Your task to perform on an android device: Open calendar and show me the second week of next month Image 0: 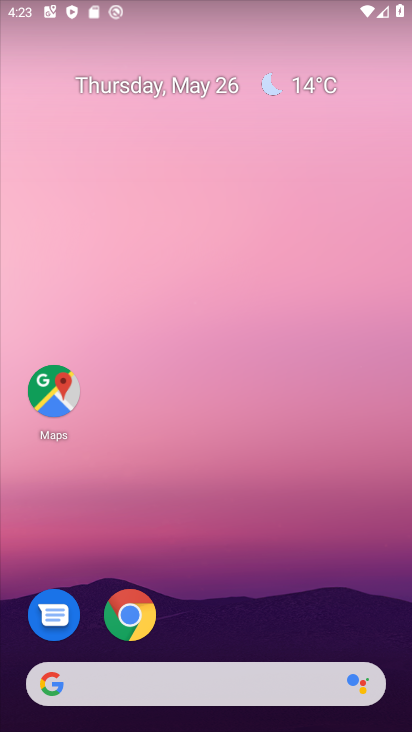
Step 0: drag from (278, 594) to (286, 227)
Your task to perform on an android device: Open calendar and show me the second week of next month Image 1: 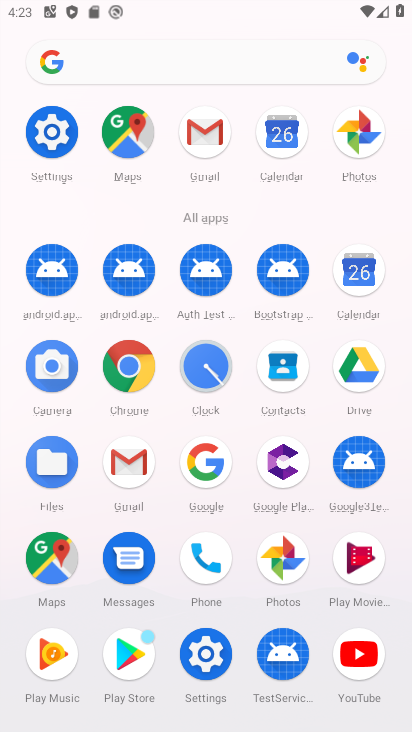
Step 1: click (361, 275)
Your task to perform on an android device: Open calendar and show me the second week of next month Image 2: 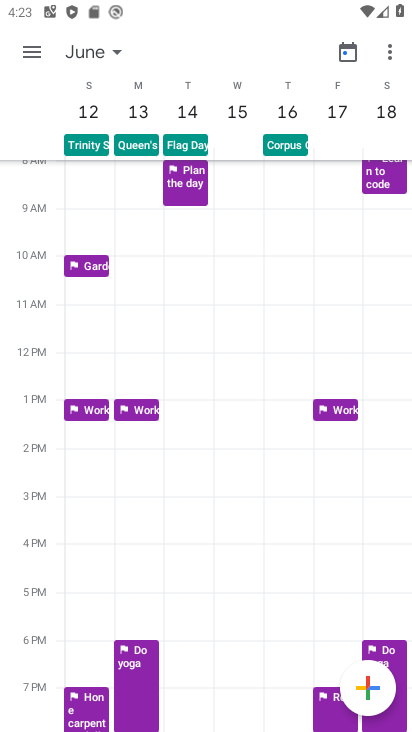
Step 2: task complete